Your task to perform on an android device: Open Google Chrome and click the shortcut for Amazon.com Image 0: 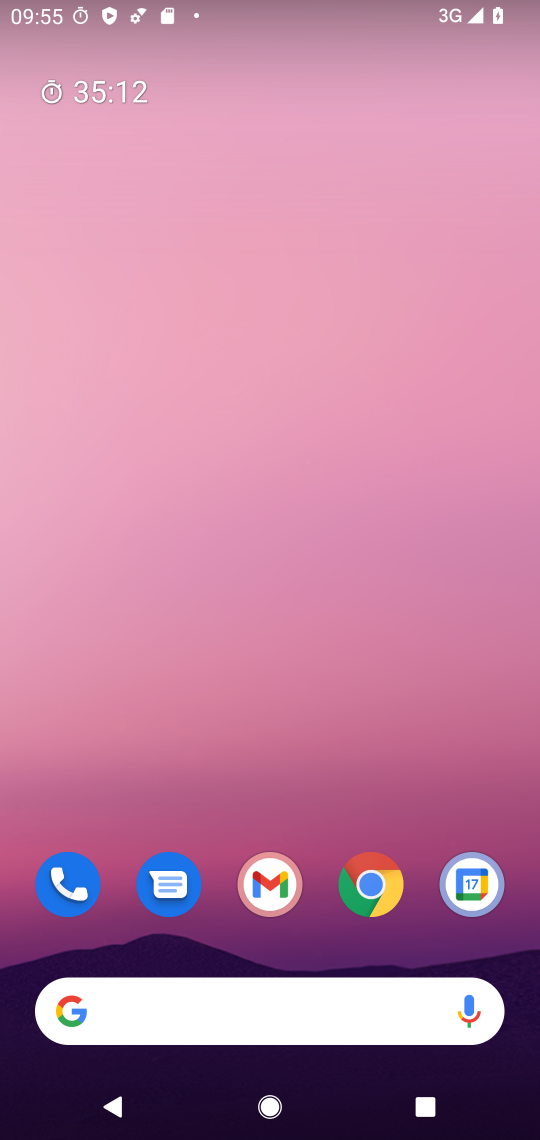
Step 0: click (354, 875)
Your task to perform on an android device: Open Google Chrome and click the shortcut for Amazon.com Image 1: 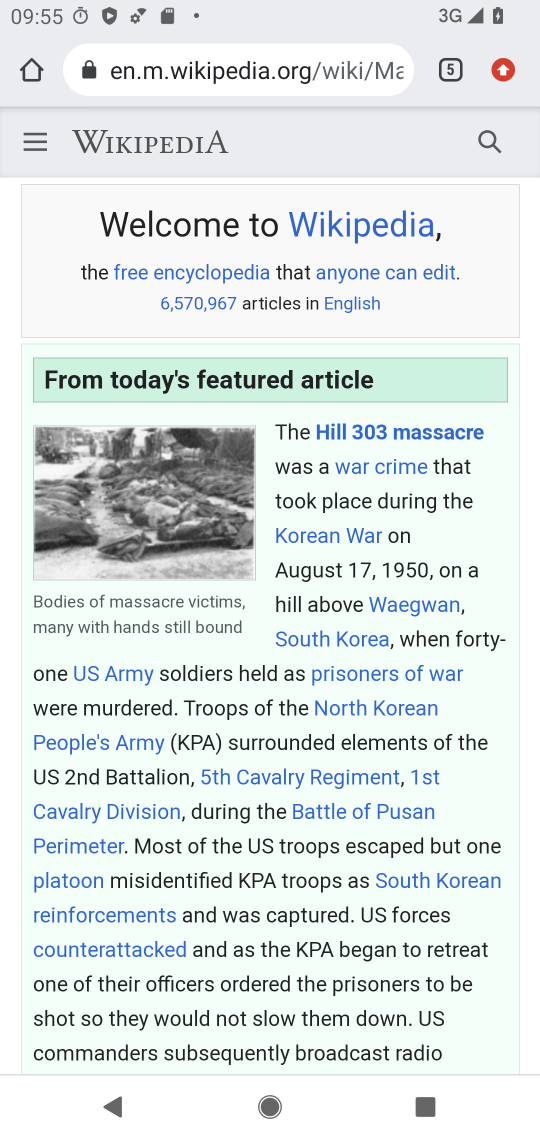
Step 1: click (448, 74)
Your task to perform on an android device: Open Google Chrome and click the shortcut for Amazon.com Image 2: 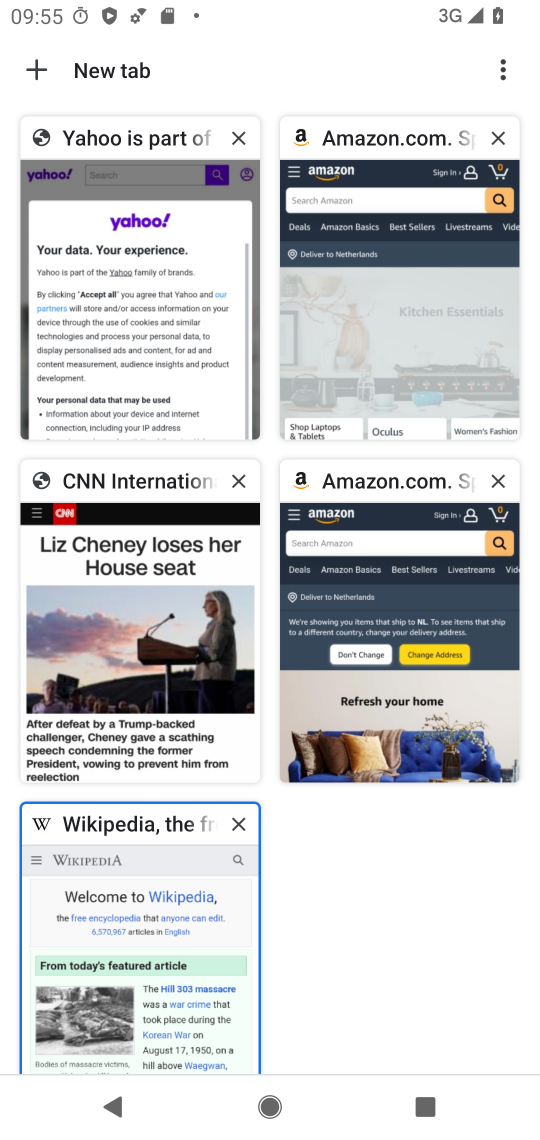
Step 2: click (341, 269)
Your task to perform on an android device: Open Google Chrome and click the shortcut for Amazon.com Image 3: 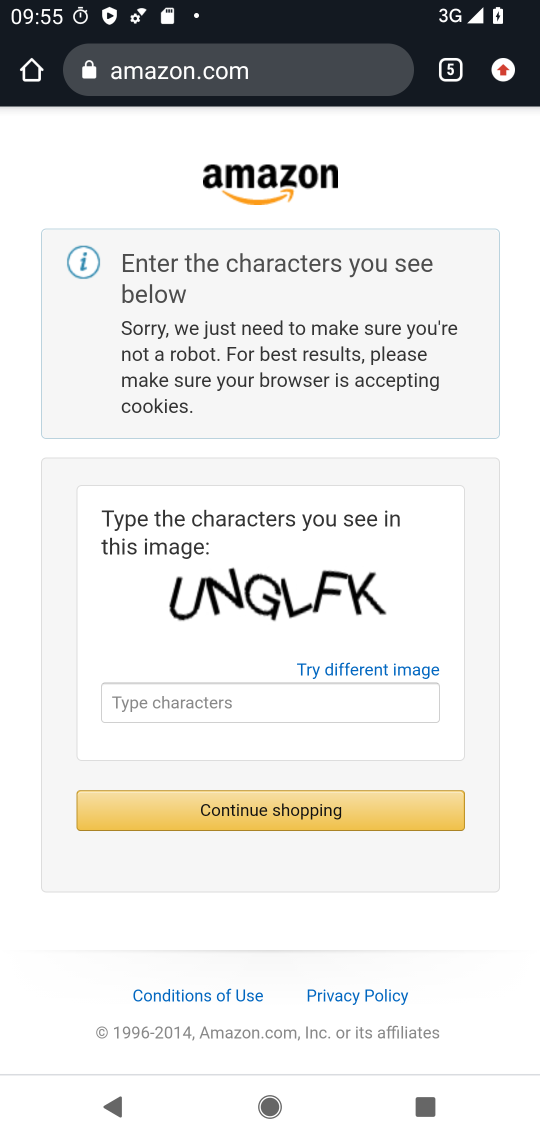
Step 3: task complete